Your task to perform on an android device: Search for Italian restaurants on Maps Image 0: 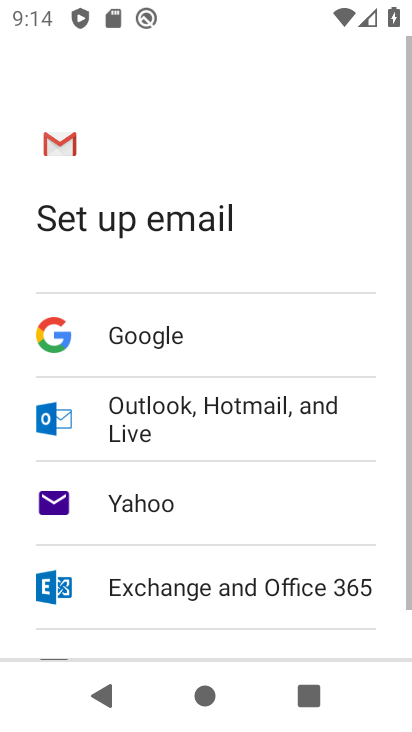
Step 0: press home button
Your task to perform on an android device: Search for Italian restaurants on Maps Image 1: 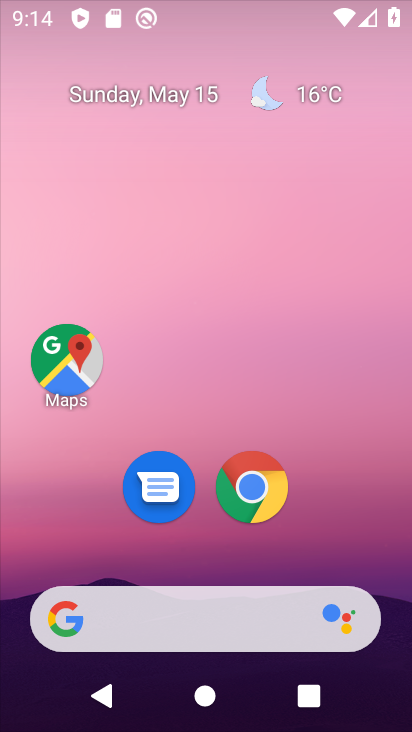
Step 1: drag from (350, 539) to (347, 127)
Your task to perform on an android device: Search for Italian restaurants on Maps Image 2: 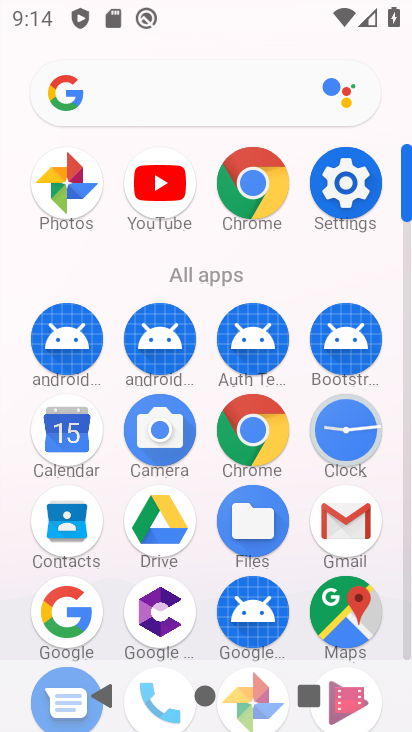
Step 2: click (263, 425)
Your task to perform on an android device: Search for Italian restaurants on Maps Image 3: 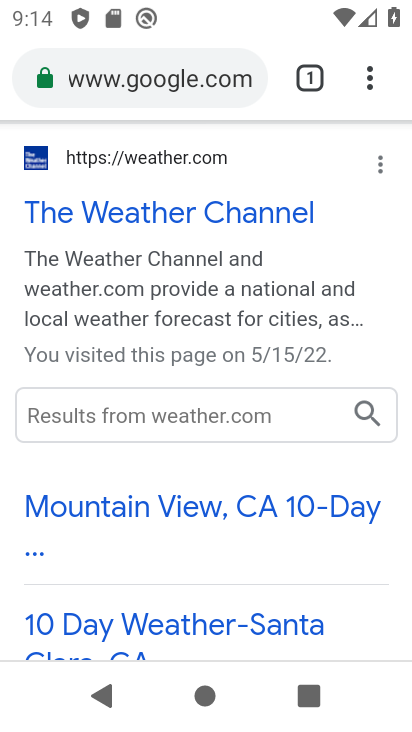
Step 3: click (197, 84)
Your task to perform on an android device: Search for Italian restaurants on Maps Image 4: 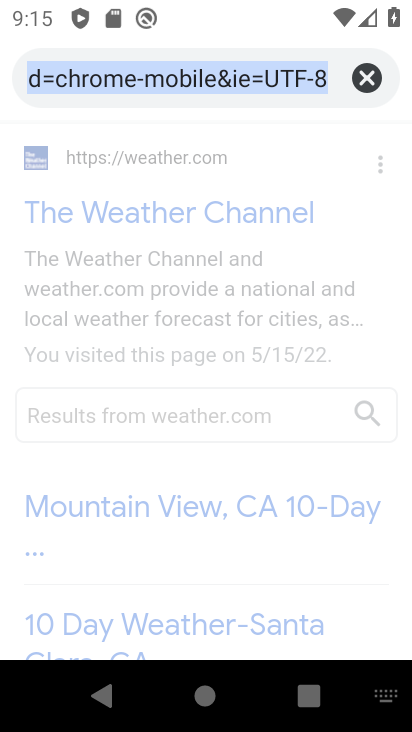
Step 4: click (373, 86)
Your task to perform on an android device: Search for Italian restaurants on Maps Image 5: 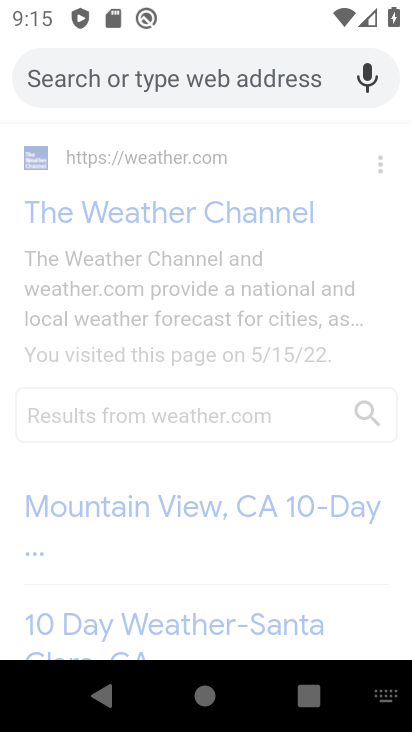
Step 5: type "italian restaurants "
Your task to perform on an android device: Search for Italian restaurants on Maps Image 6: 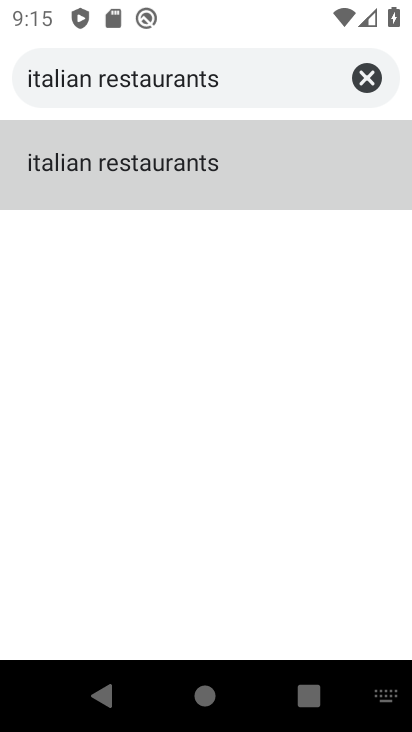
Step 6: click (173, 163)
Your task to perform on an android device: Search for Italian restaurants on Maps Image 7: 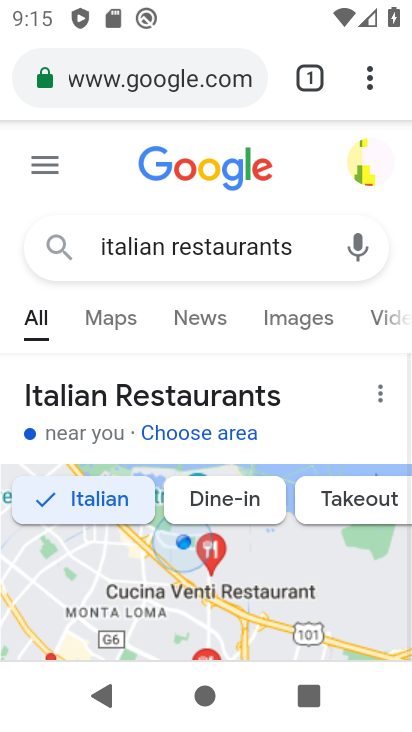
Step 7: drag from (217, 617) to (311, 343)
Your task to perform on an android device: Search for Italian restaurants on Maps Image 8: 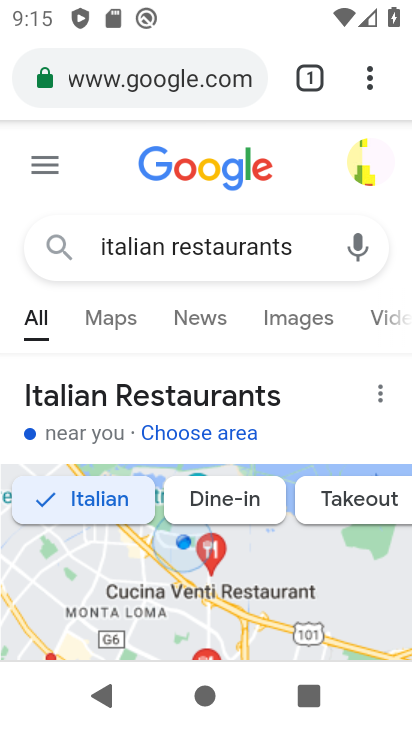
Step 8: drag from (267, 578) to (289, 311)
Your task to perform on an android device: Search for Italian restaurants on Maps Image 9: 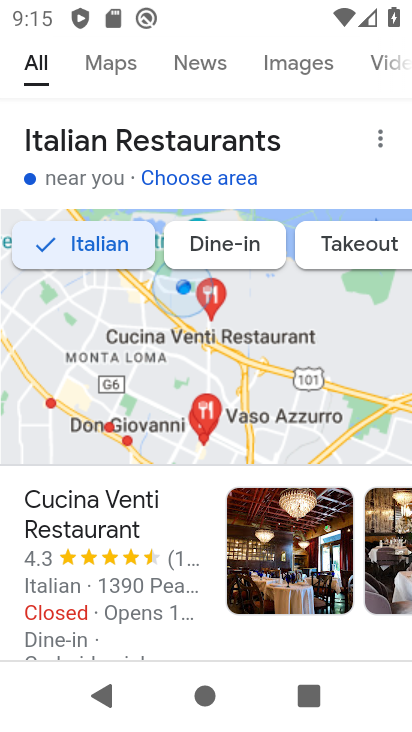
Step 9: drag from (202, 643) to (228, 317)
Your task to perform on an android device: Search for Italian restaurants on Maps Image 10: 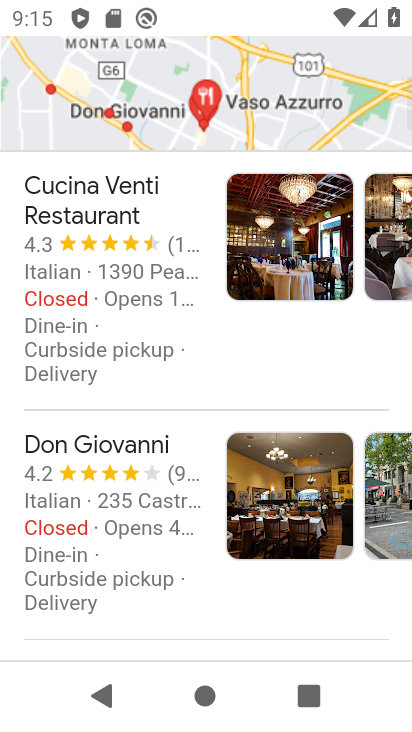
Step 10: drag from (195, 630) to (227, 308)
Your task to perform on an android device: Search for Italian restaurants on Maps Image 11: 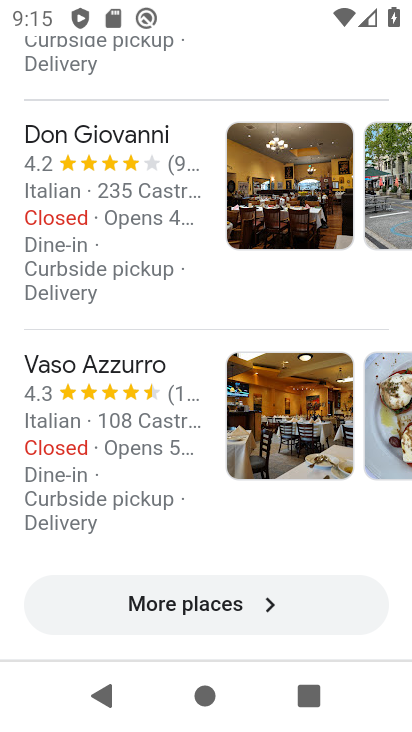
Step 11: drag from (141, 176) to (81, 584)
Your task to perform on an android device: Search for Italian restaurants on Maps Image 12: 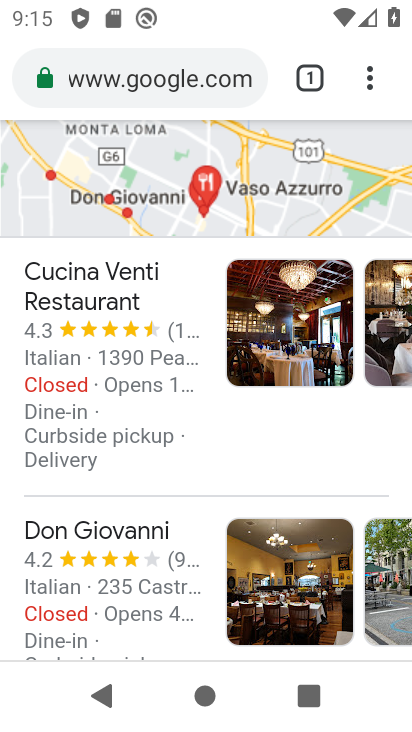
Step 12: click (150, 77)
Your task to perform on an android device: Search for Italian restaurants on Maps Image 13: 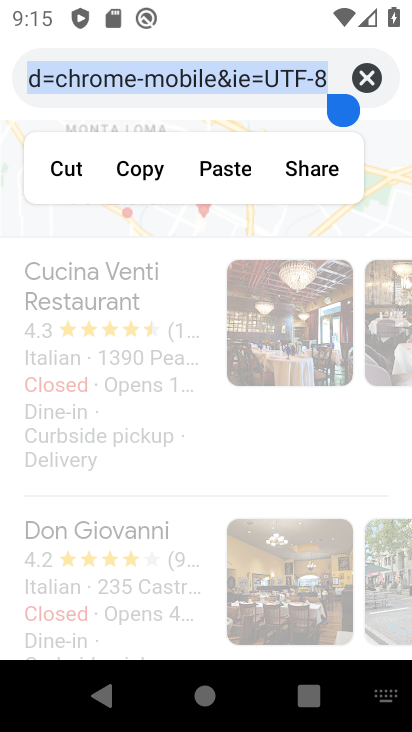
Step 13: task complete